Your task to perform on an android device: find which apps use the phone's location Image 0: 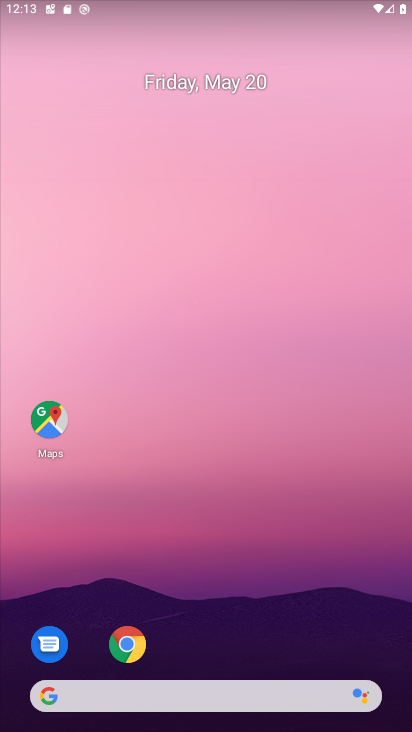
Step 0: drag from (188, 676) to (238, 275)
Your task to perform on an android device: find which apps use the phone's location Image 1: 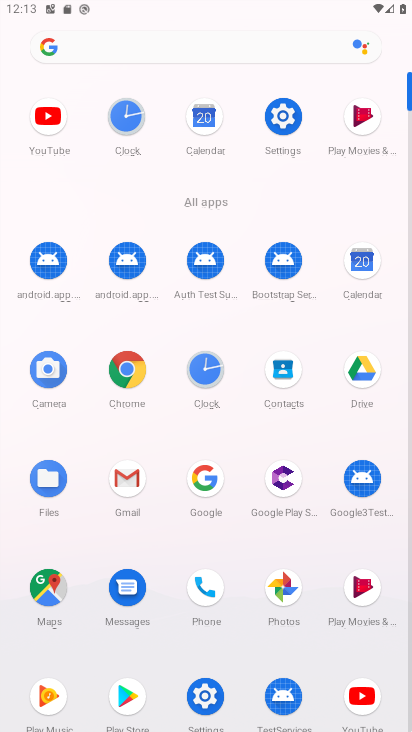
Step 1: click (281, 126)
Your task to perform on an android device: find which apps use the phone's location Image 2: 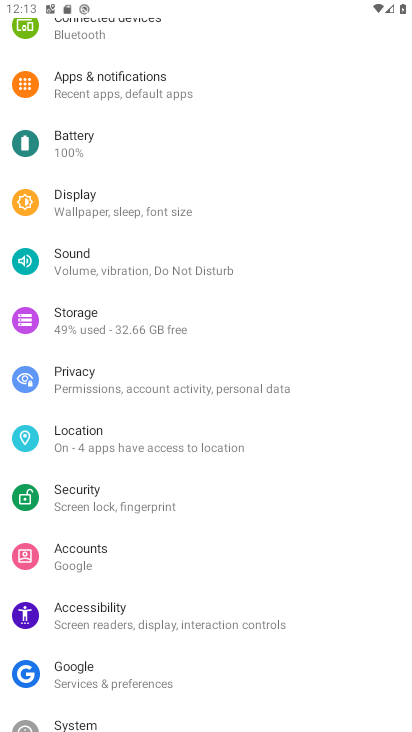
Step 2: click (97, 409)
Your task to perform on an android device: find which apps use the phone's location Image 3: 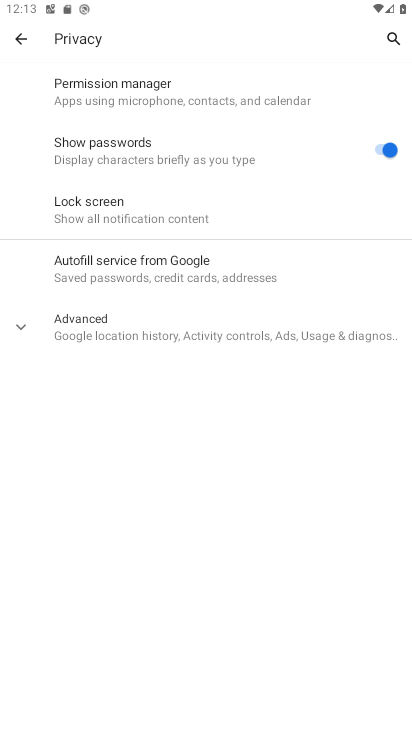
Step 3: click (92, 326)
Your task to perform on an android device: find which apps use the phone's location Image 4: 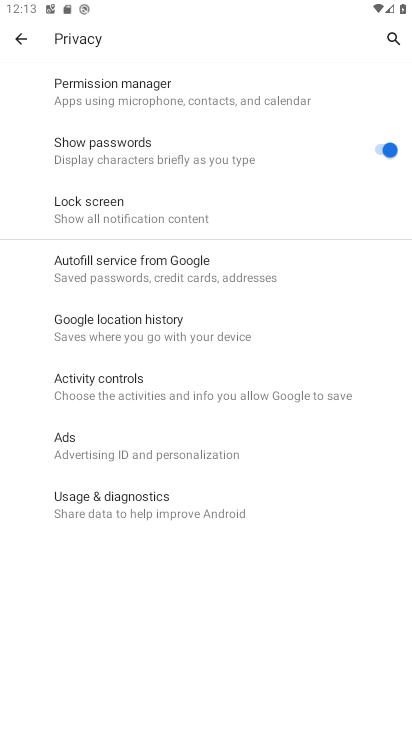
Step 4: click (15, 38)
Your task to perform on an android device: find which apps use the phone's location Image 5: 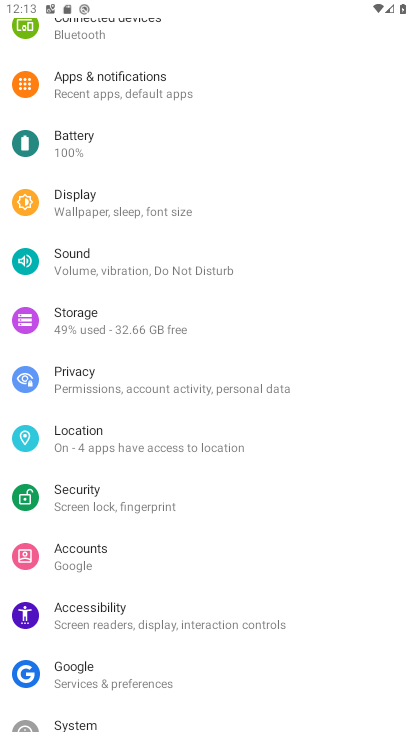
Step 5: click (89, 437)
Your task to perform on an android device: find which apps use the phone's location Image 6: 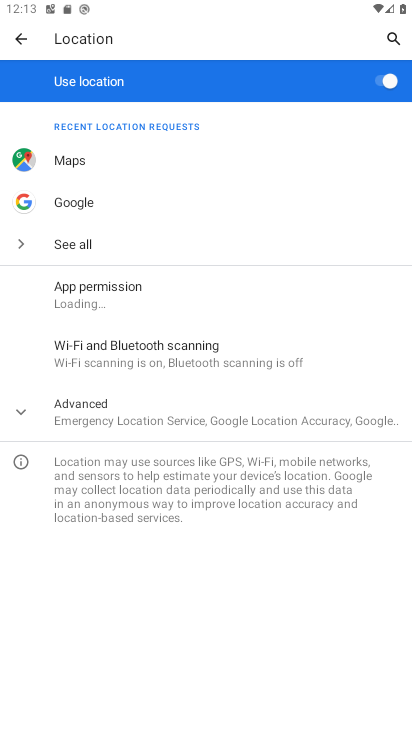
Step 6: click (98, 293)
Your task to perform on an android device: find which apps use the phone's location Image 7: 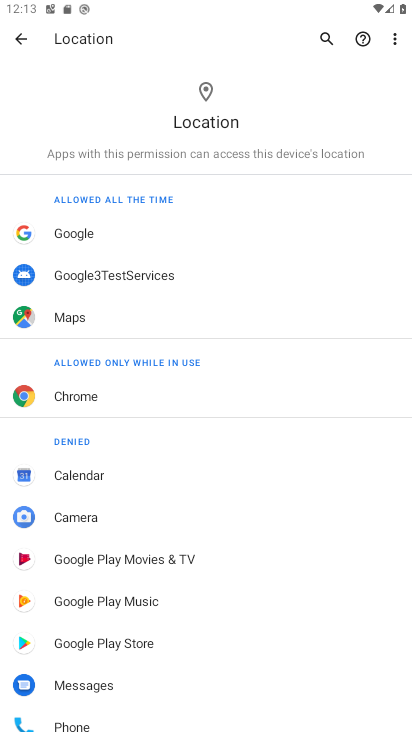
Step 7: task complete